Your task to perform on an android device: create a new album in the google photos Image 0: 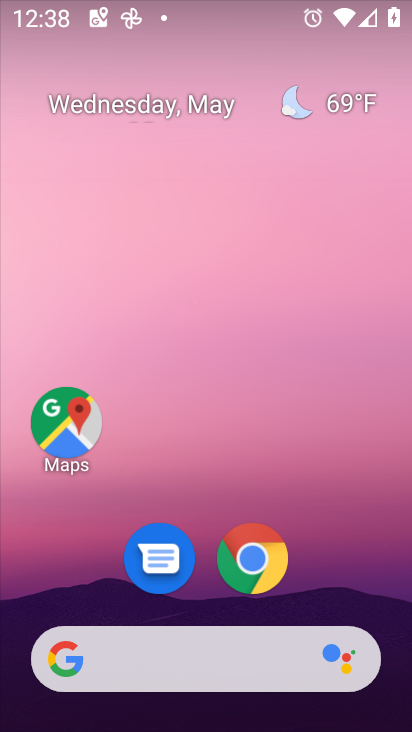
Step 0: drag from (389, 642) to (371, 8)
Your task to perform on an android device: create a new album in the google photos Image 1: 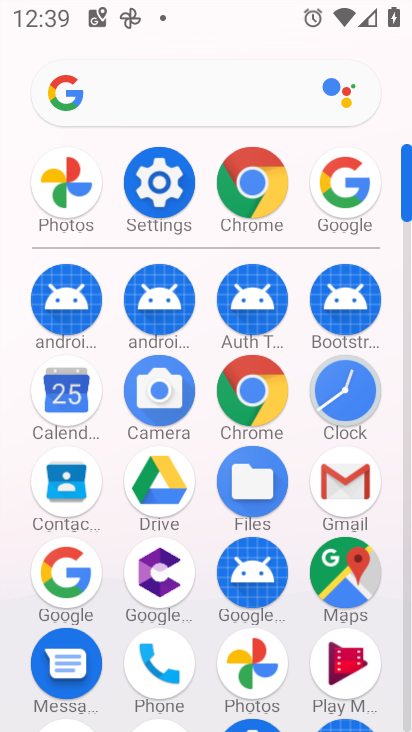
Step 1: click (267, 662)
Your task to perform on an android device: create a new album in the google photos Image 2: 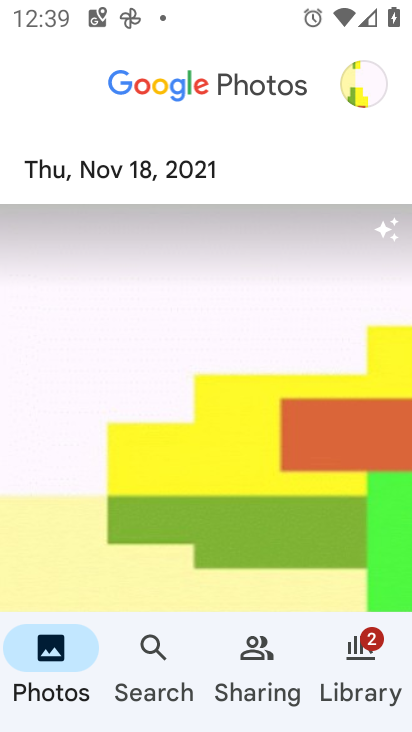
Step 2: task complete